Your task to perform on an android device: Open the web browser Image 0: 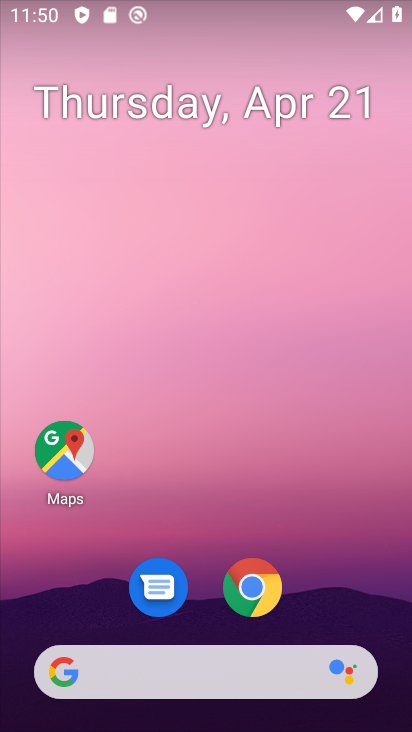
Step 0: click (253, 596)
Your task to perform on an android device: Open the web browser Image 1: 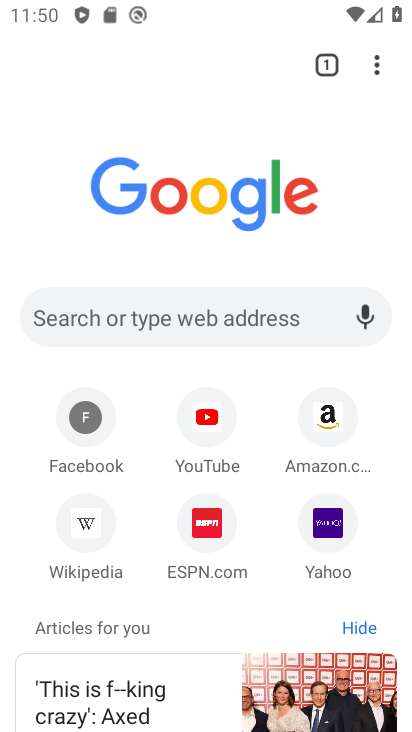
Step 1: task complete